Your task to perform on an android device: Open settings on Google Maps Image 0: 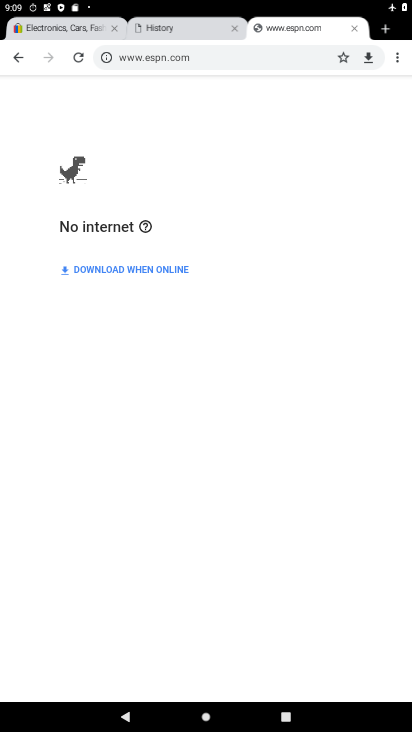
Step 0: press home button
Your task to perform on an android device: Open settings on Google Maps Image 1: 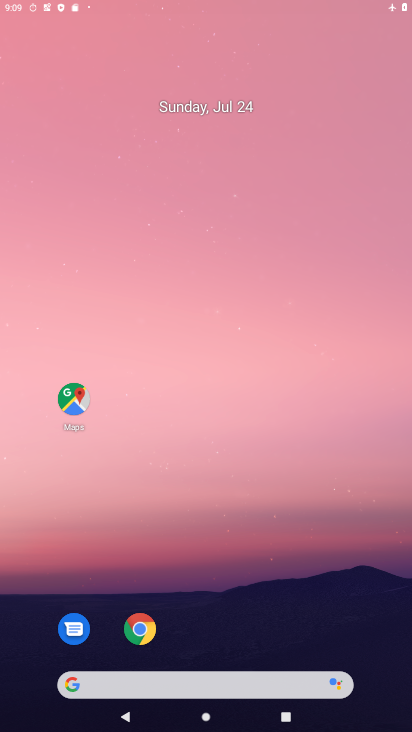
Step 1: drag from (203, 678) to (187, 165)
Your task to perform on an android device: Open settings on Google Maps Image 2: 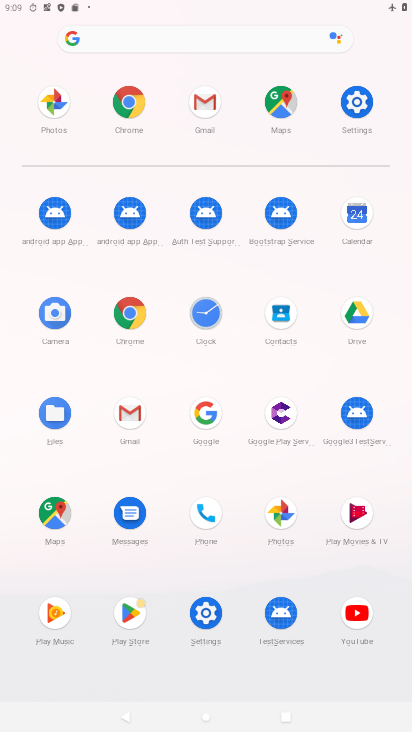
Step 2: click (52, 515)
Your task to perform on an android device: Open settings on Google Maps Image 3: 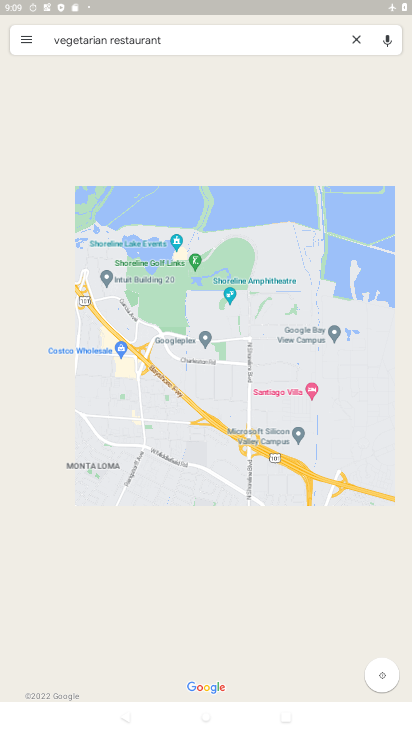
Step 3: click (18, 36)
Your task to perform on an android device: Open settings on Google Maps Image 4: 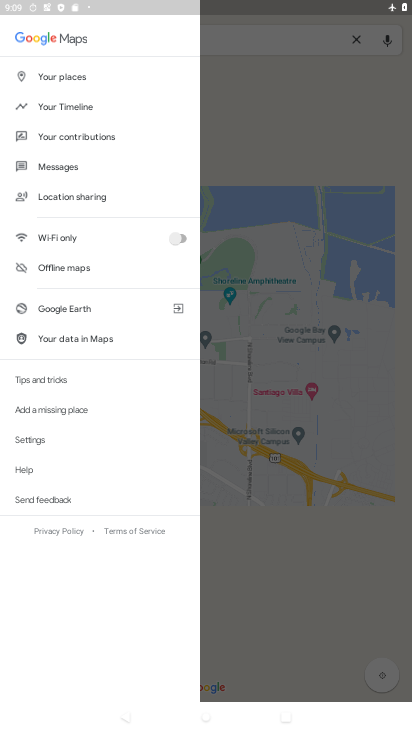
Step 4: click (54, 441)
Your task to perform on an android device: Open settings on Google Maps Image 5: 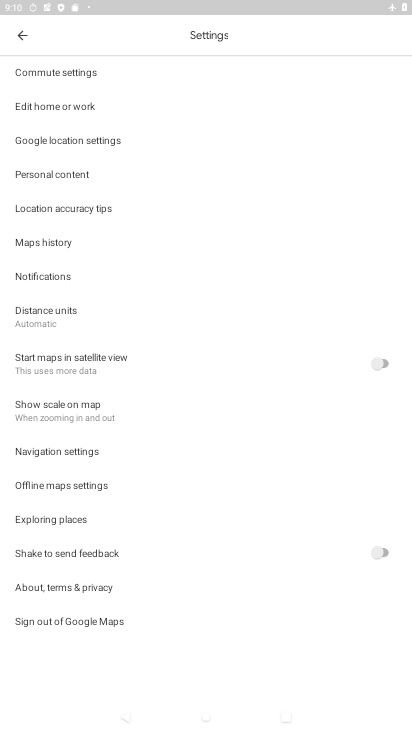
Step 5: task complete